Your task to perform on an android device: Add "logitech g910" to the cart on bestbuy, then select checkout. Image 0: 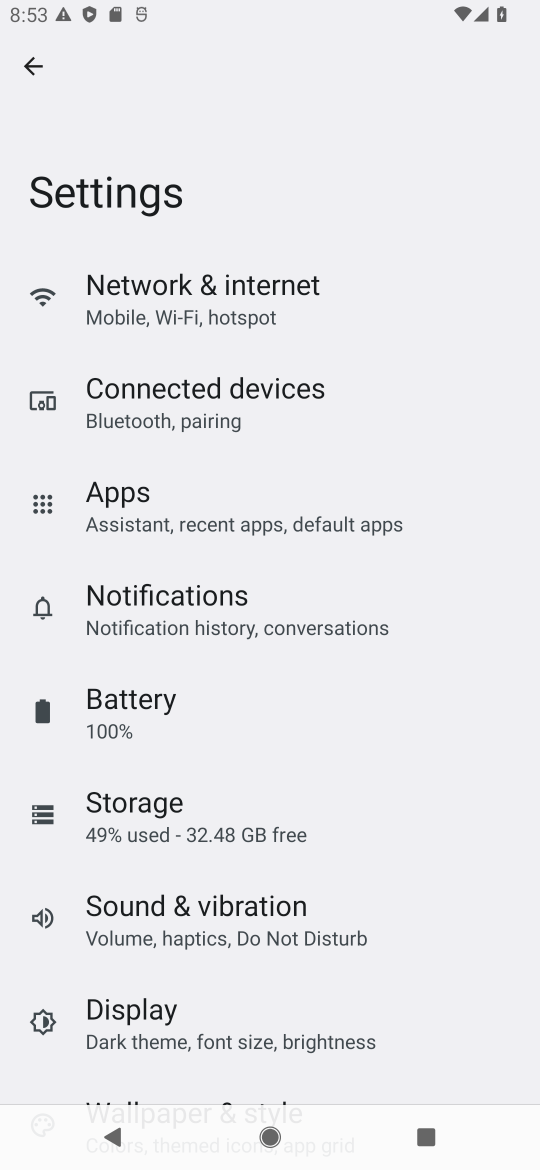
Step 0: press home button
Your task to perform on an android device: Add "logitech g910" to the cart on bestbuy, then select checkout. Image 1: 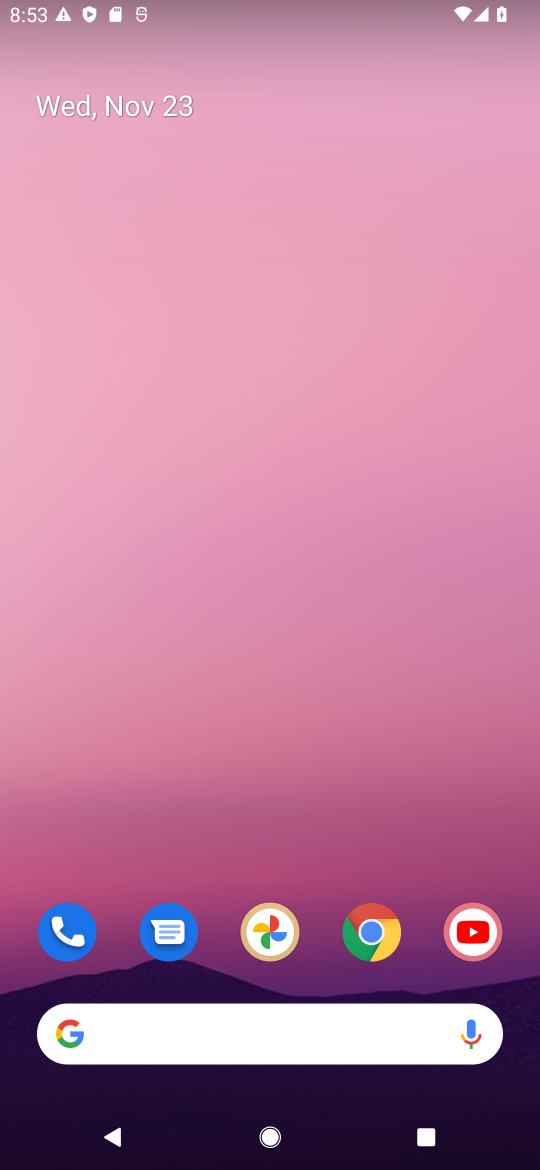
Step 1: click (354, 941)
Your task to perform on an android device: Add "logitech g910" to the cart on bestbuy, then select checkout. Image 2: 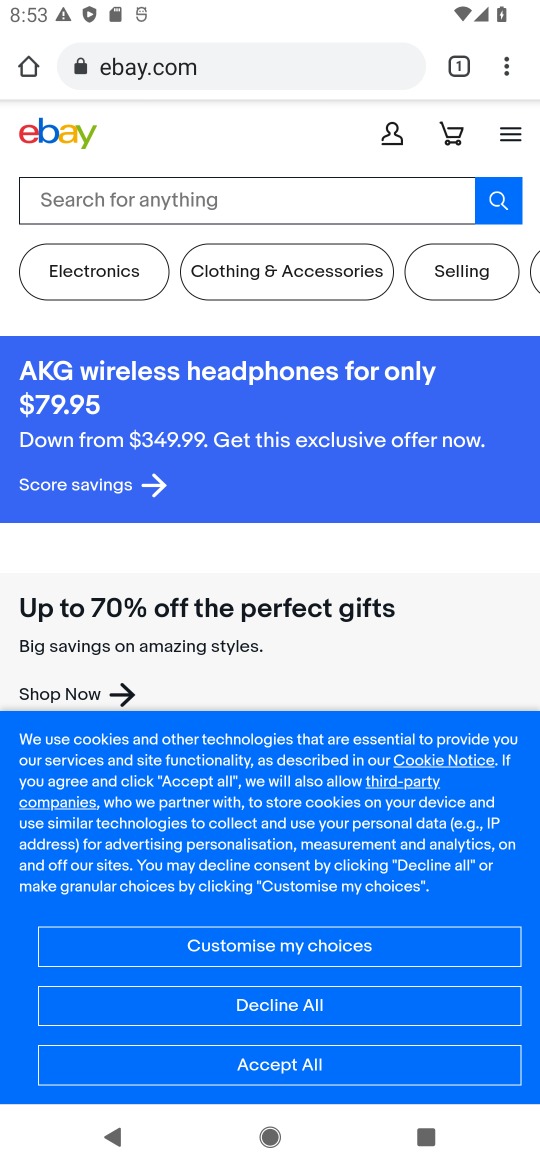
Step 2: click (306, 79)
Your task to perform on an android device: Add "logitech g910" to the cart on bestbuy, then select checkout. Image 3: 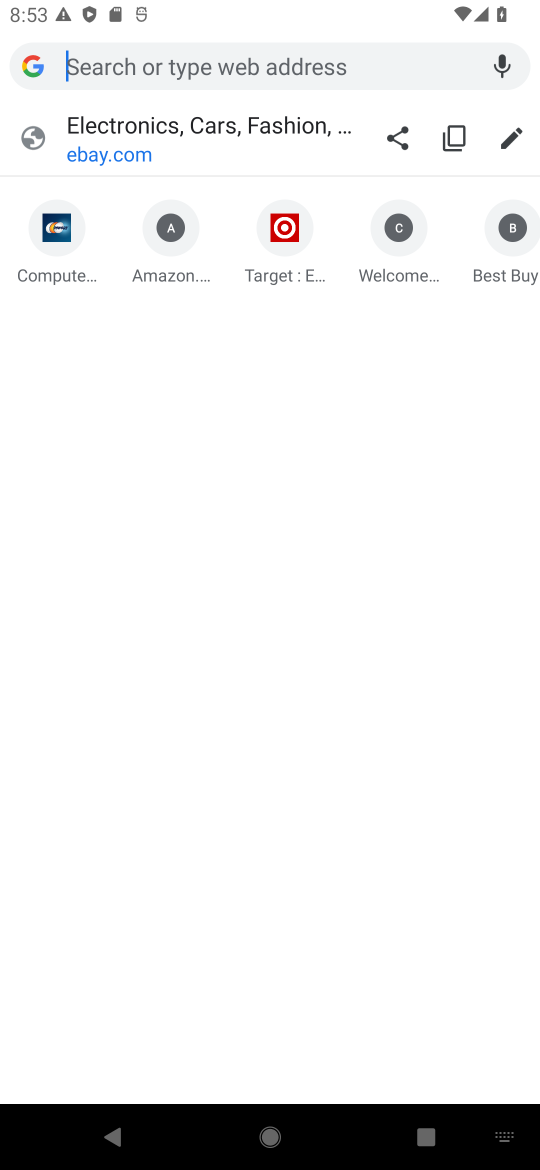
Step 3: type "bestbuy"
Your task to perform on an android device: Add "logitech g910" to the cart on bestbuy, then select checkout. Image 4: 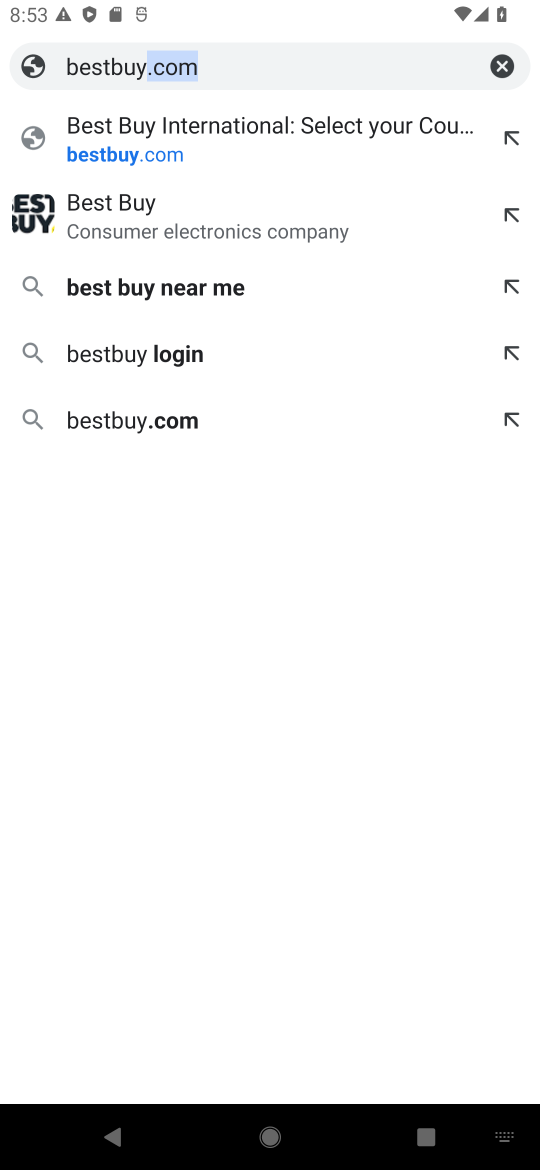
Step 4: click (176, 150)
Your task to perform on an android device: Add "logitech g910" to the cart on bestbuy, then select checkout. Image 5: 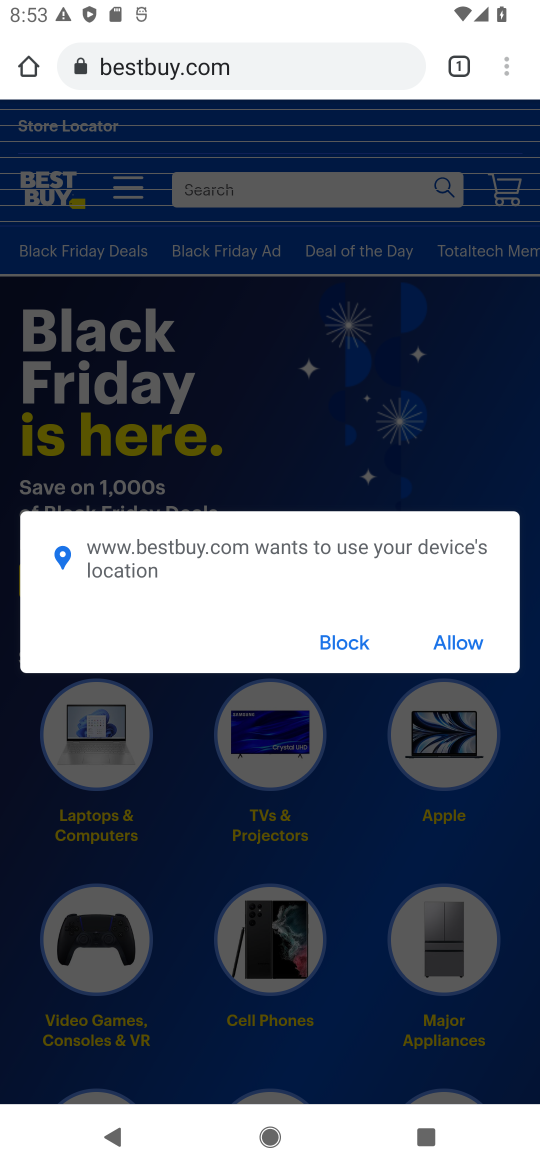
Step 5: click (465, 652)
Your task to perform on an android device: Add "logitech g910" to the cart on bestbuy, then select checkout. Image 6: 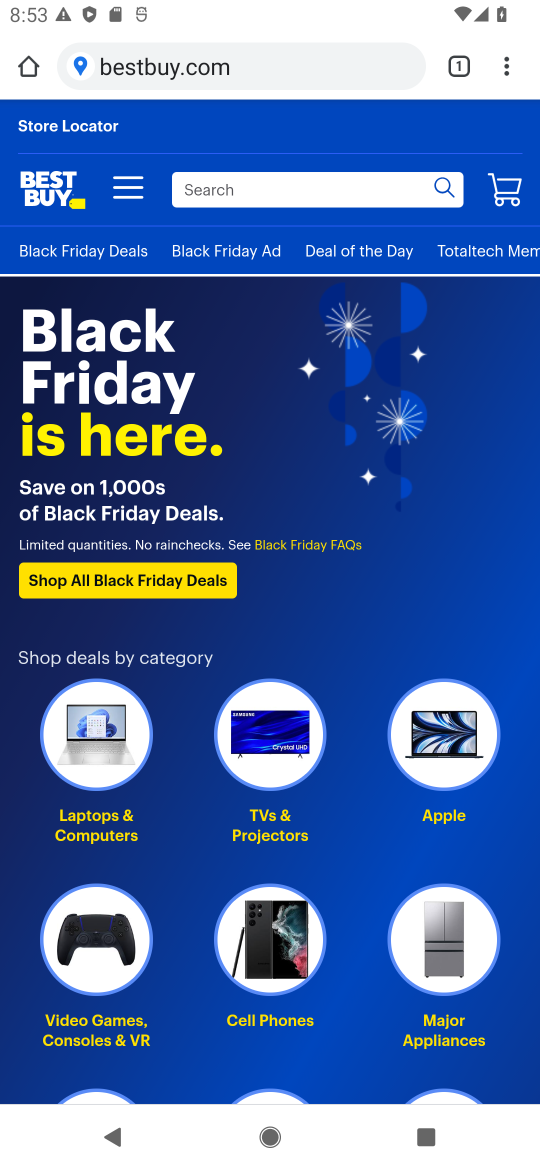
Step 6: click (261, 195)
Your task to perform on an android device: Add "logitech g910" to the cart on bestbuy, then select checkout. Image 7: 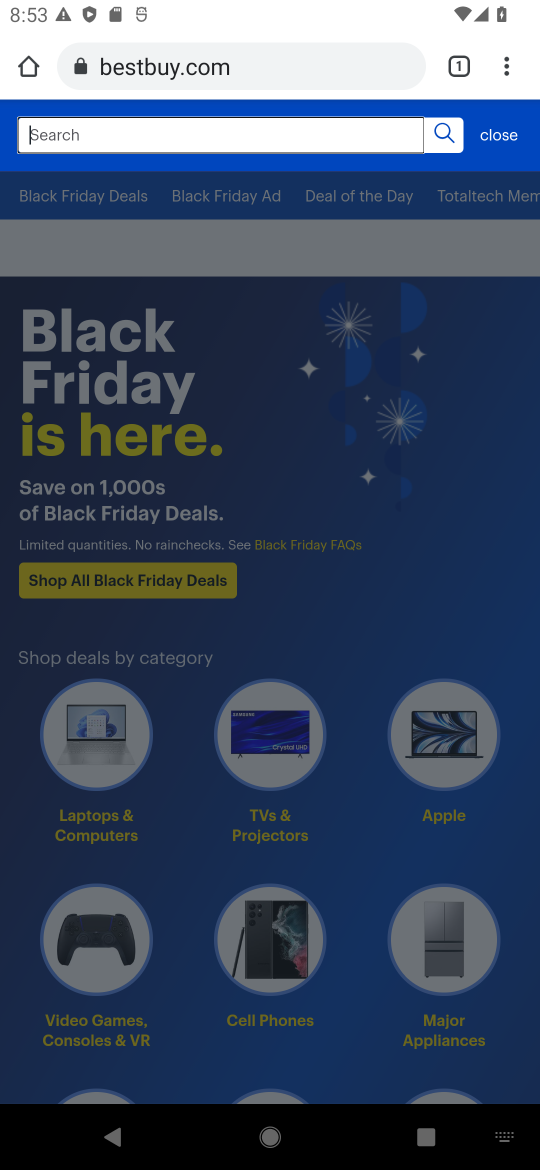
Step 7: type "logitech g910"
Your task to perform on an android device: Add "logitech g910" to the cart on bestbuy, then select checkout. Image 8: 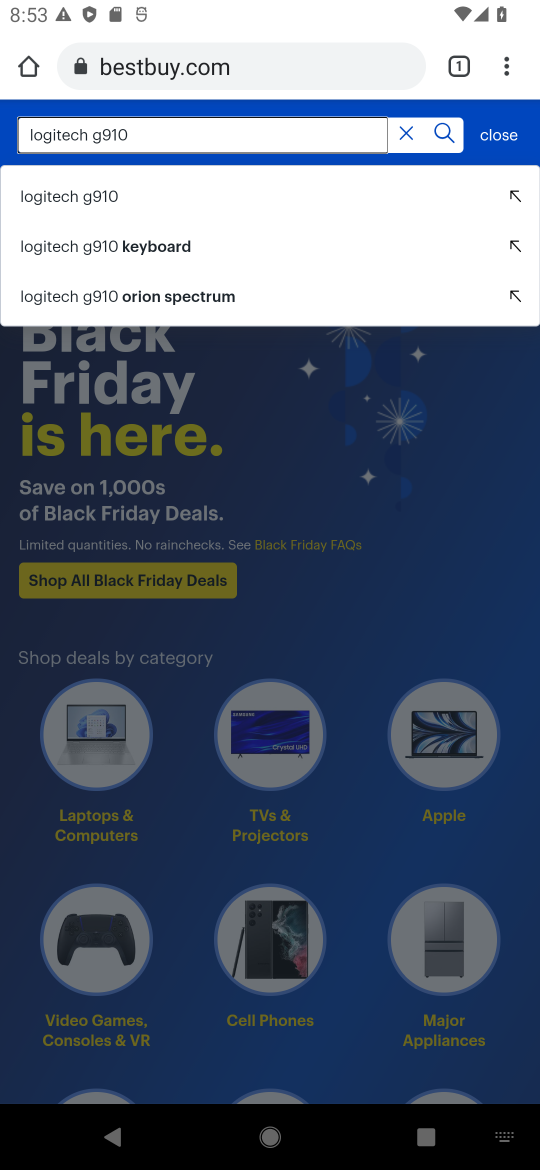
Step 8: click (116, 196)
Your task to perform on an android device: Add "logitech g910" to the cart on bestbuy, then select checkout. Image 9: 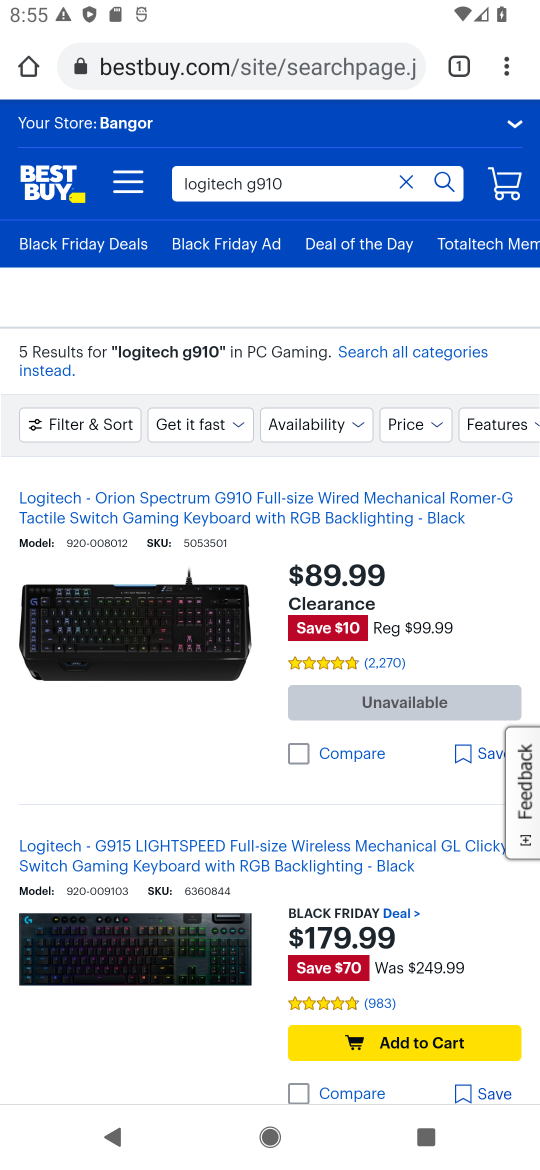
Step 9: task complete